Your task to perform on an android device: turn off wifi Image 0: 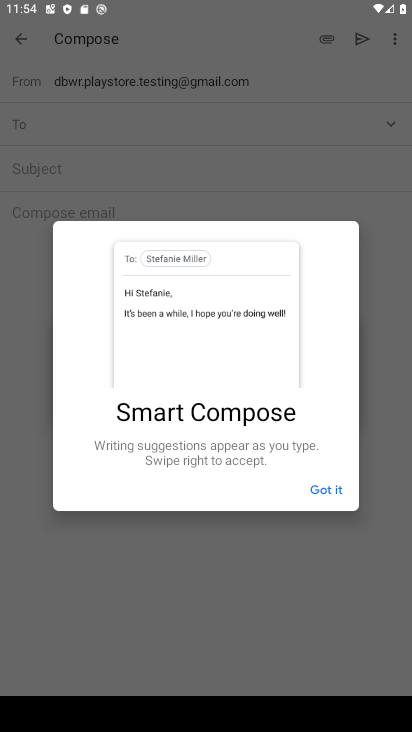
Step 0: press home button
Your task to perform on an android device: turn off wifi Image 1: 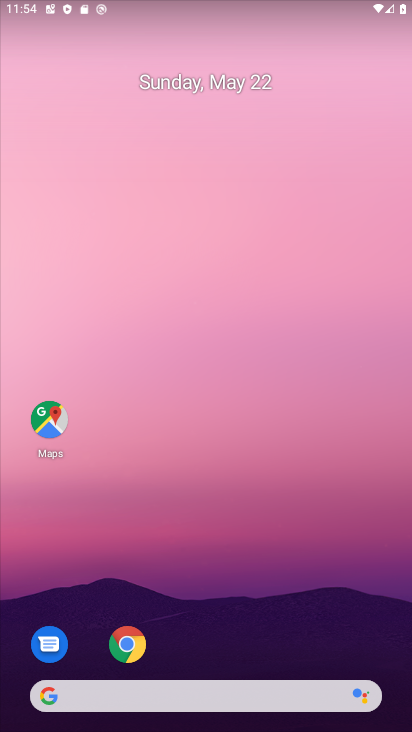
Step 1: drag from (205, 11) to (248, 429)
Your task to perform on an android device: turn off wifi Image 2: 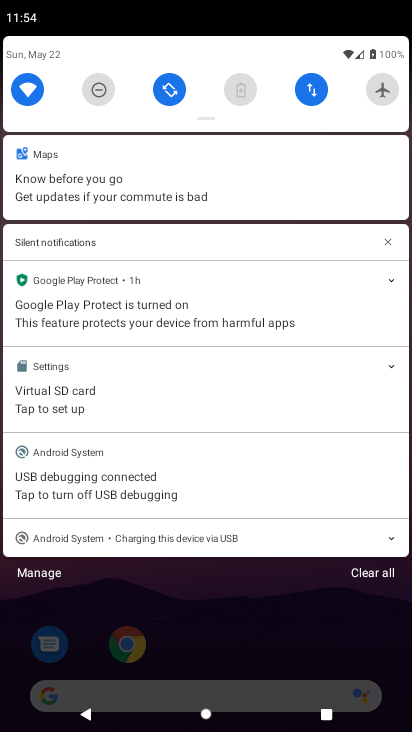
Step 2: click (30, 87)
Your task to perform on an android device: turn off wifi Image 3: 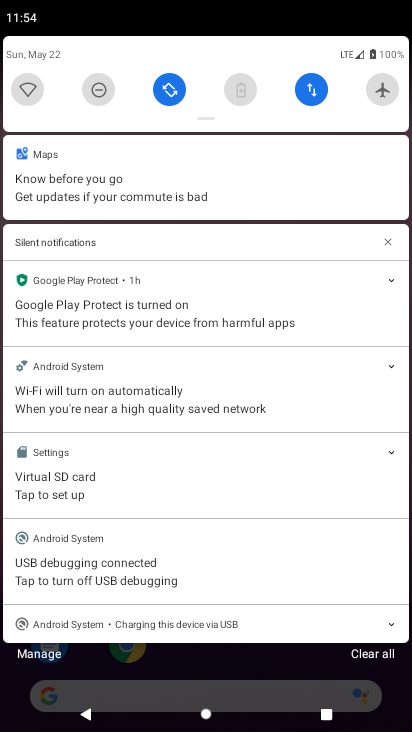
Step 3: task complete